Your task to perform on an android device: turn on sleep mode Image 0: 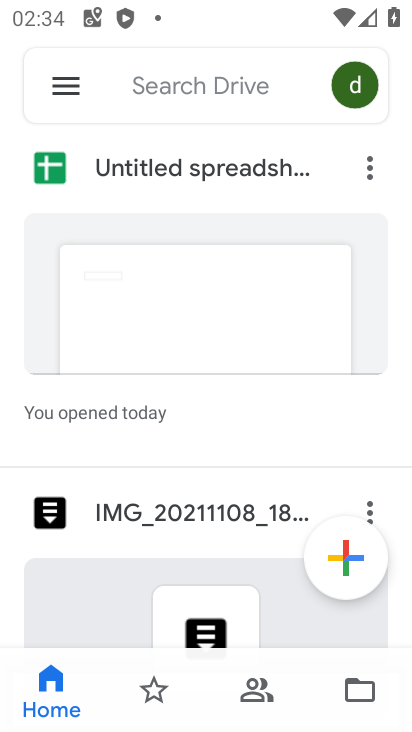
Step 0: press home button
Your task to perform on an android device: turn on sleep mode Image 1: 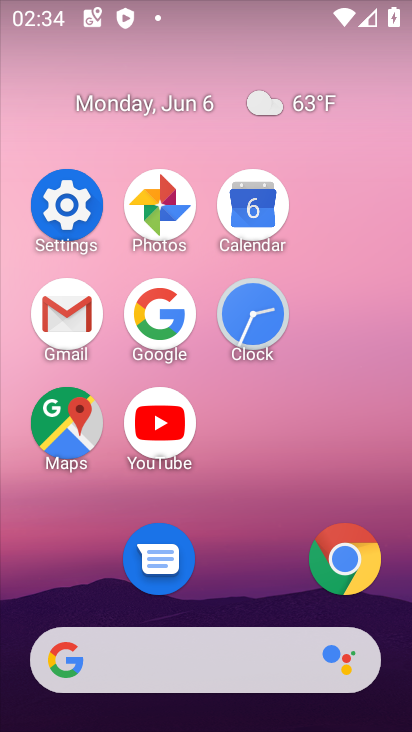
Step 1: click (76, 210)
Your task to perform on an android device: turn on sleep mode Image 2: 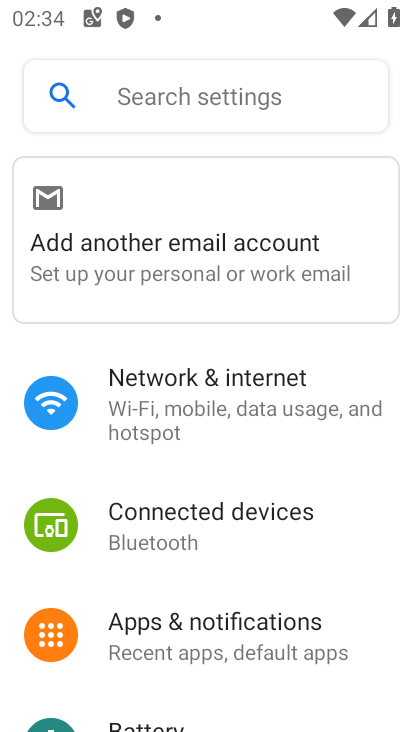
Step 2: drag from (219, 622) to (290, 184)
Your task to perform on an android device: turn on sleep mode Image 3: 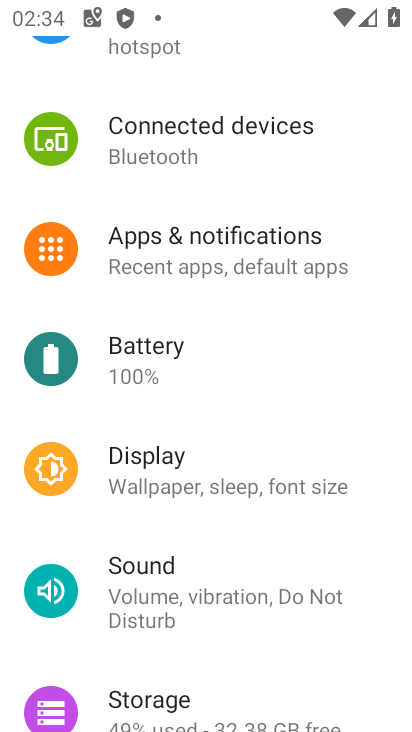
Step 3: click (207, 472)
Your task to perform on an android device: turn on sleep mode Image 4: 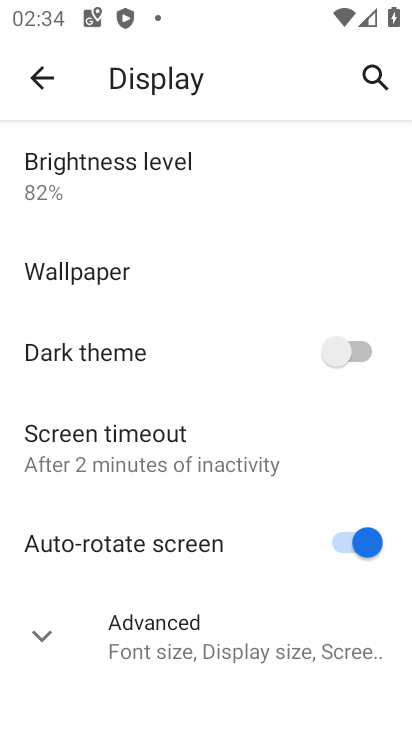
Step 4: click (207, 472)
Your task to perform on an android device: turn on sleep mode Image 5: 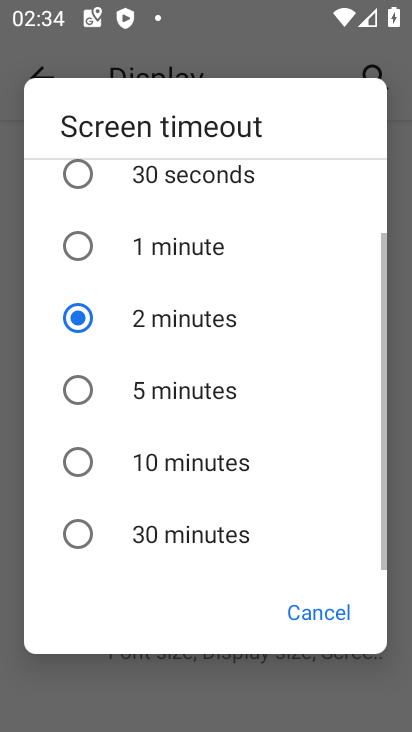
Step 5: task complete